Your task to perform on an android device: Open Google Maps and go to "Timeline" Image 0: 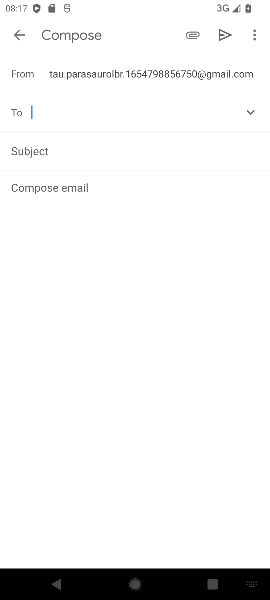
Step 0: press home button
Your task to perform on an android device: Open Google Maps and go to "Timeline" Image 1: 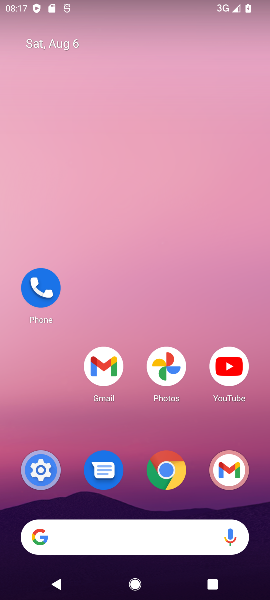
Step 1: drag from (86, 497) to (80, 334)
Your task to perform on an android device: Open Google Maps and go to "Timeline" Image 2: 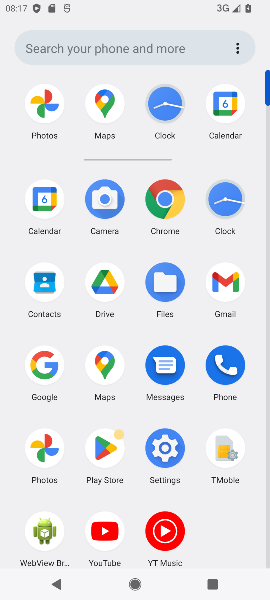
Step 2: click (99, 373)
Your task to perform on an android device: Open Google Maps and go to "Timeline" Image 3: 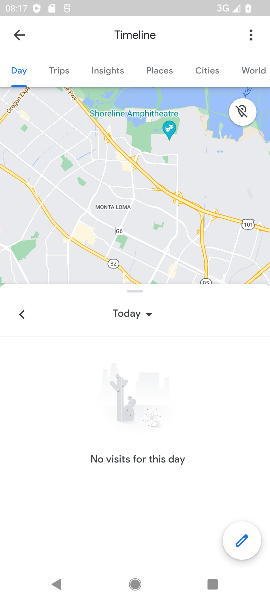
Step 3: task complete